Your task to perform on an android device: Open ESPN.com Image 0: 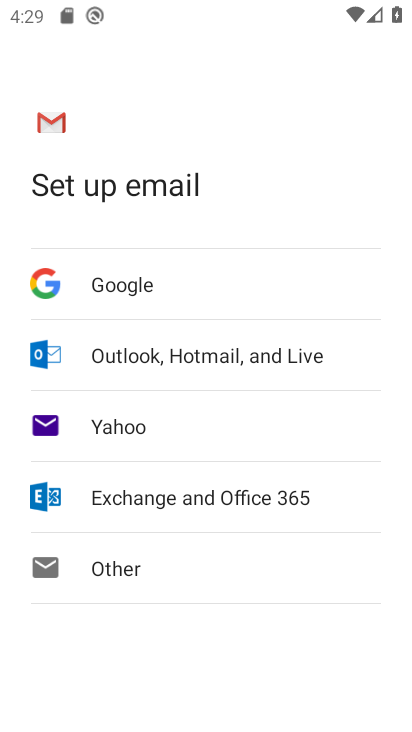
Step 0: press home button
Your task to perform on an android device: Open ESPN.com Image 1: 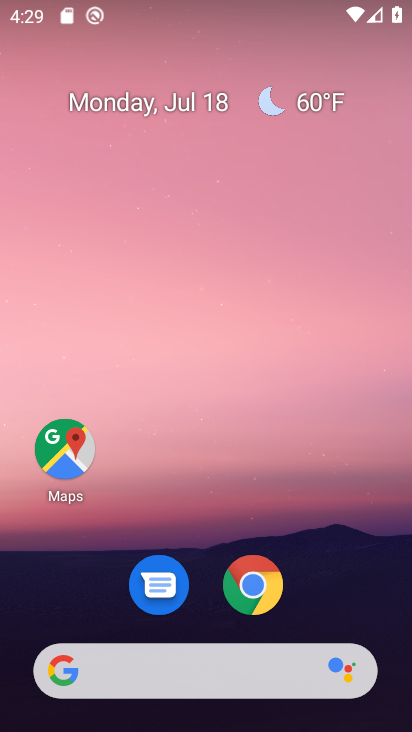
Step 1: click (261, 589)
Your task to perform on an android device: Open ESPN.com Image 2: 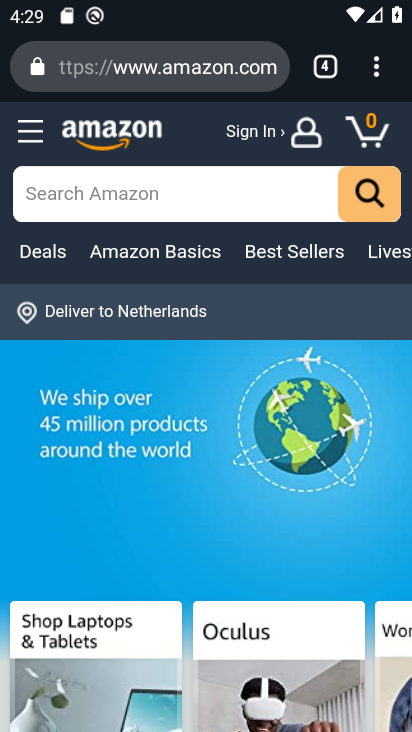
Step 2: press home button
Your task to perform on an android device: Open ESPN.com Image 3: 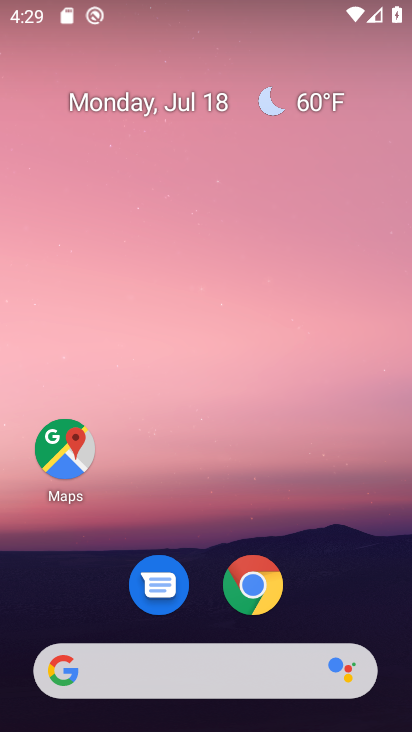
Step 3: click (272, 683)
Your task to perform on an android device: Open ESPN.com Image 4: 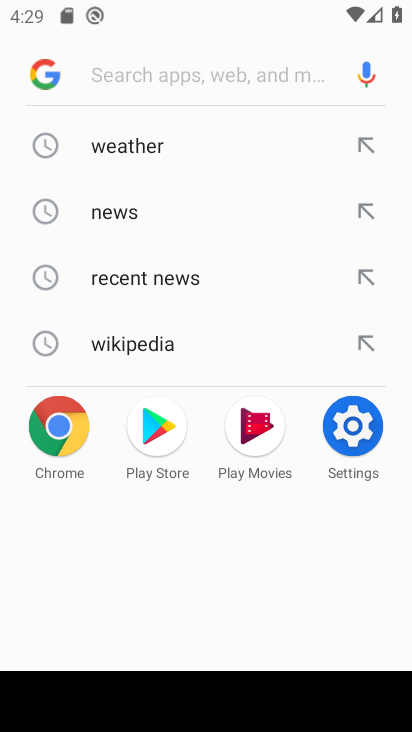
Step 4: type "espn.com"
Your task to perform on an android device: Open ESPN.com Image 5: 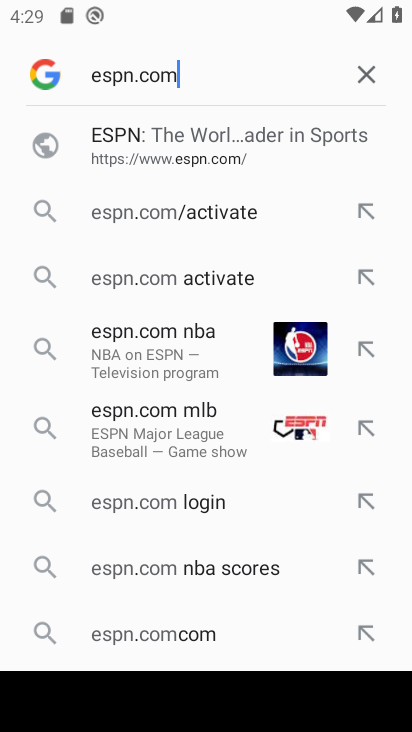
Step 5: click (184, 150)
Your task to perform on an android device: Open ESPN.com Image 6: 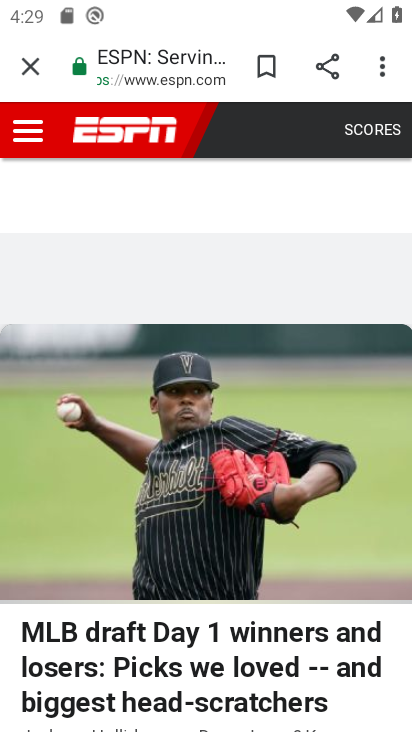
Step 6: task complete